Your task to perform on an android device: turn on airplane mode Image 0: 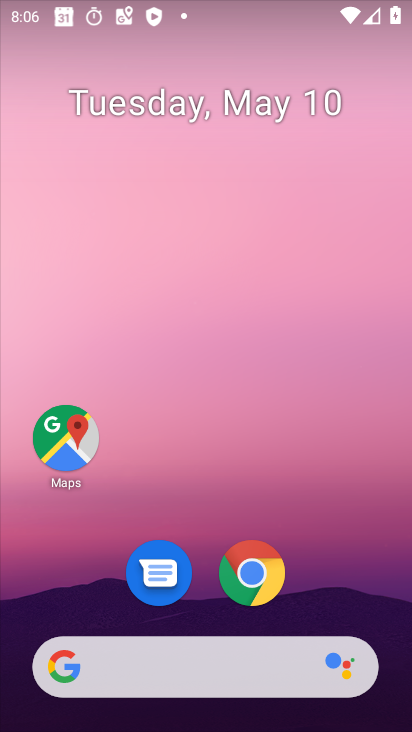
Step 0: drag from (319, 566) to (319, 180)
Your task to perform on an android device: turn on airplane mode Image 1: 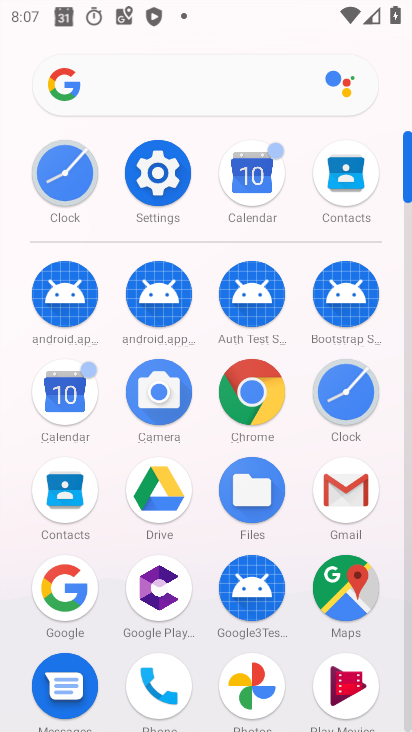
Step 1: click (156, 193)
Your task to perform on an android device: turn on airplane mode Image 2: 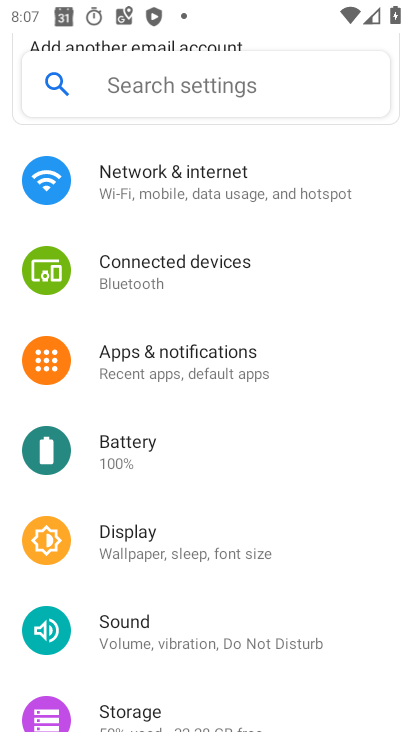
Step 2: click (231, 203)
Your task to perform on an android device: turn on airplane mode Image 3: 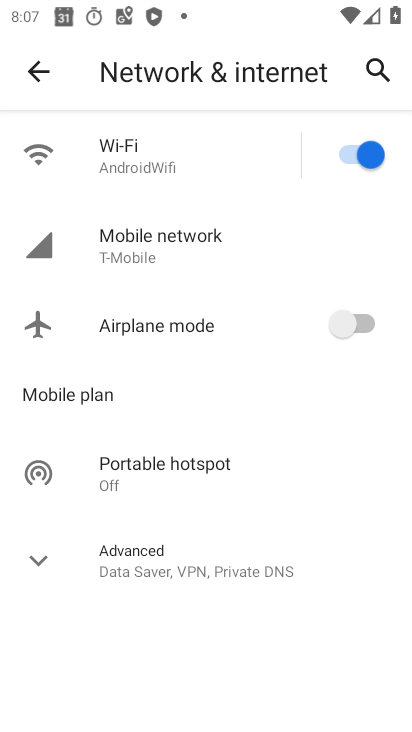
Step 3: click (364, 328)
Your task to perform on an android device: turn on airplane mode Image 4: 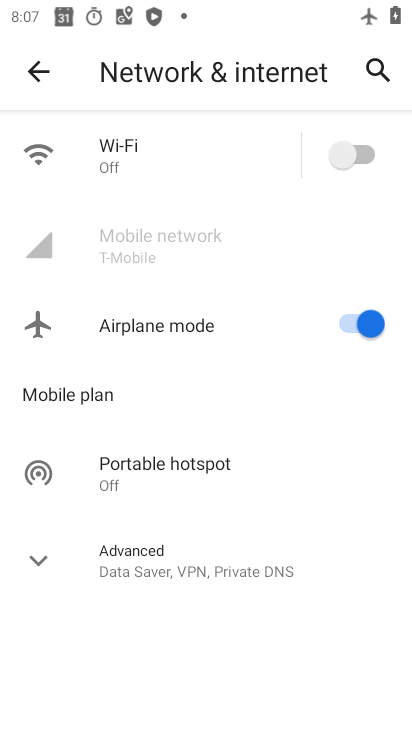
Step 4: task complete